Your task to perform on an android device: Open battery settings Image 0: 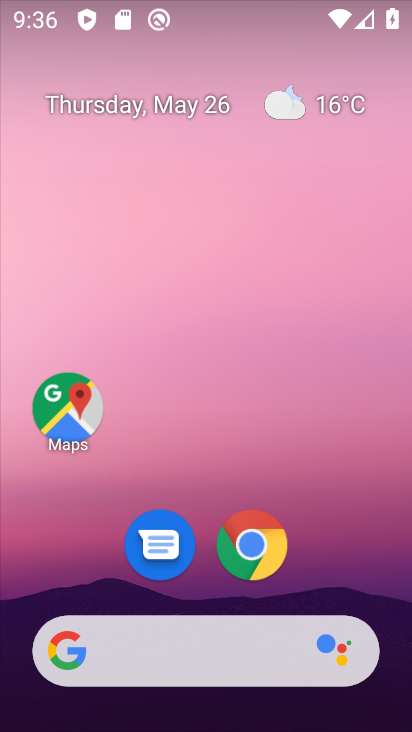
Step 0: drag from (291, 584) to (294, 80)
Your task to perform on an android device: Open battery settings Image 1: 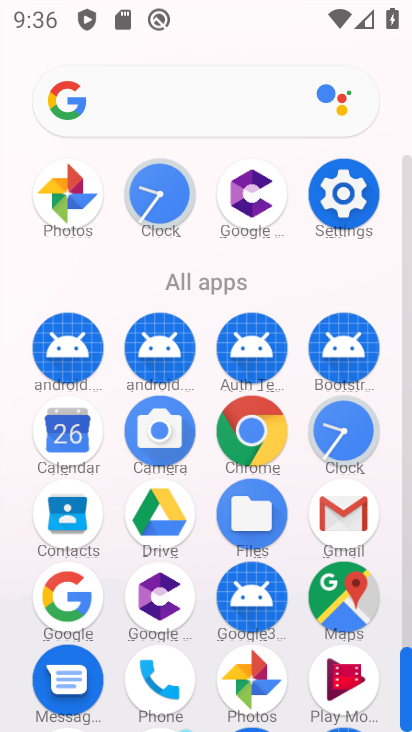
Step 1: click (334, 193)
Your task to perform on an android device: Open battery settings Image 2: 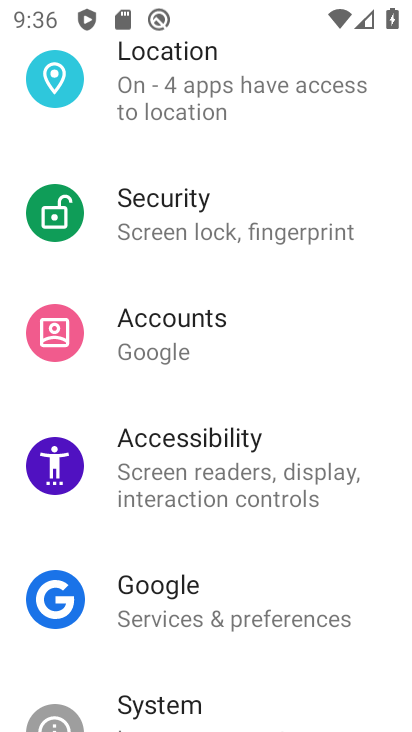
Step 2: drag from (223, 156) to (269, 535)
Your task to perform on an android device: Open battery settings Image 3: 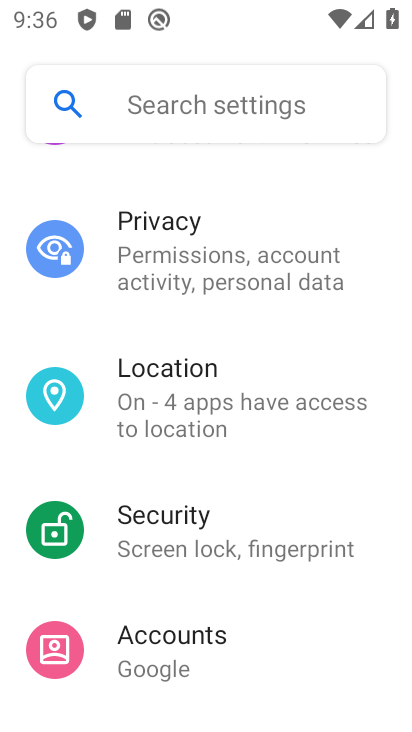
Step 3: drag from (194, 188) to (216, 553)
Your task to perform on an android device: Open battery settings Image 4: 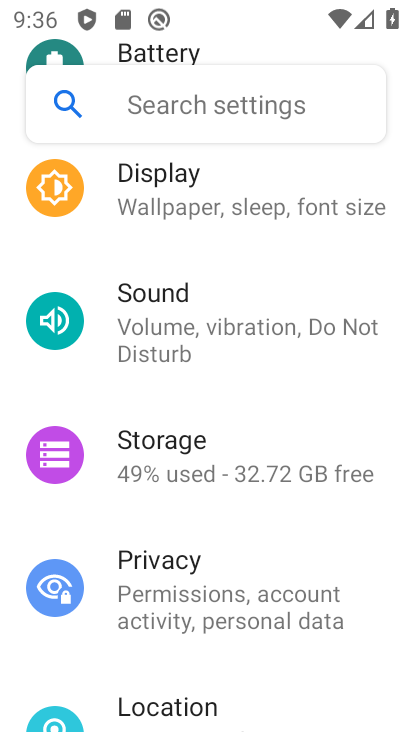
Step 4: drag from (182, 197) to (229, 523)
Your task to perform on an android device: Open battery settings Image 5: 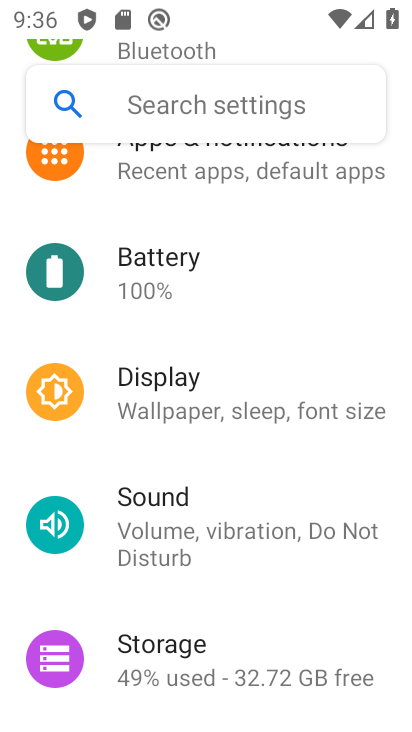
Step 5: click (152, 282)
Your task to perform on an android device: Open battery settings Image 6: 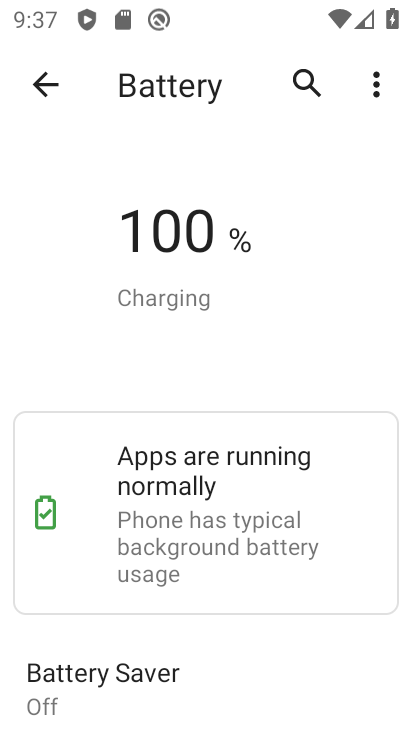
Step 6: task complete